Your task to perform on an android device: set default search engine in the chrome app Image 0: 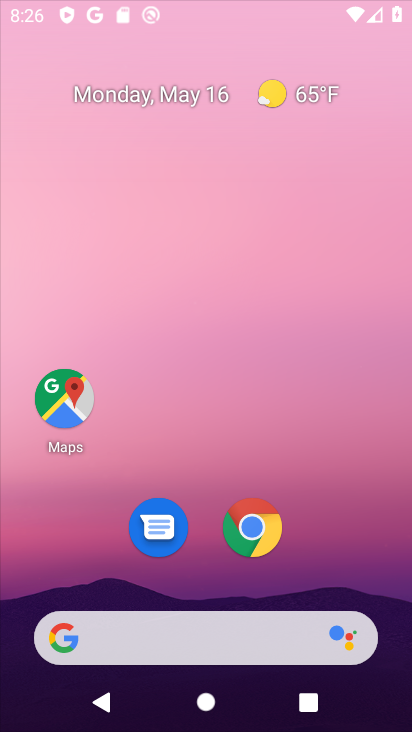
Step 0: click (321, 268)
Your task to perform on an android device: set default search engine in the chrome app Image 1: 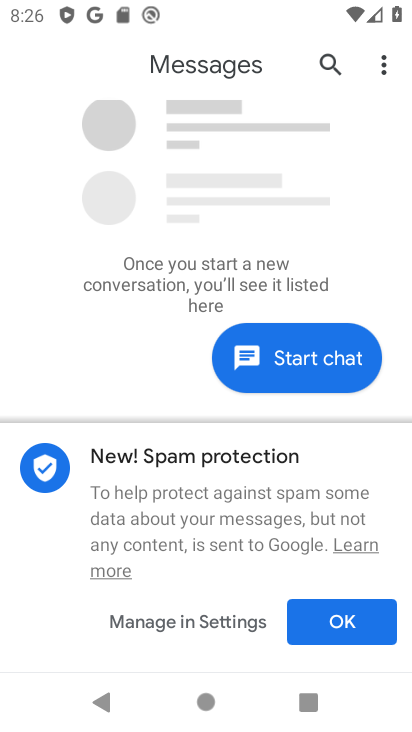
Step 1: press home button
Your task to perform on an android device: set default search engine in the chrome app Image 2: 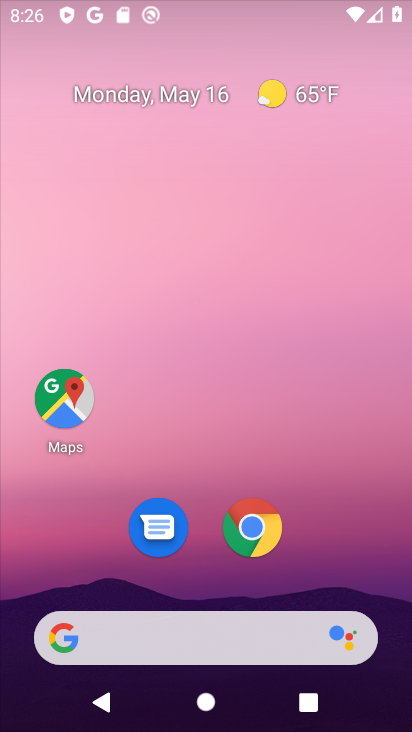
Step 2: drag from (305, 565) to (337, 198)
Your task to perform on an android device: set default search engine in the chrome app Image 3: 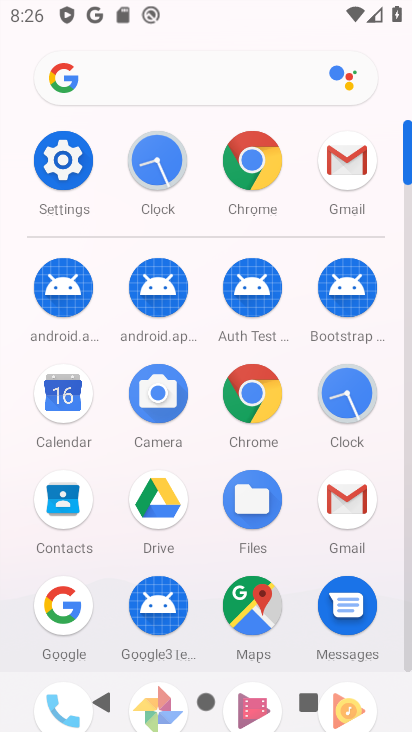
Step 3: click (270, 391)
Your task to perform on an android device: set default search engine in the chrome app Image 4: 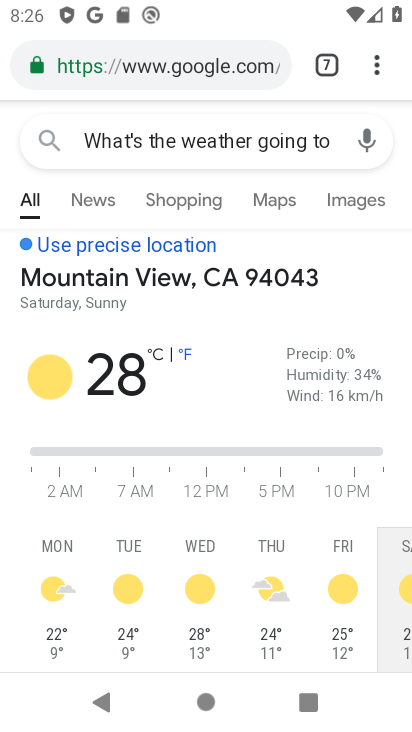
Step 4: click (367, 71)
Your task to perform on an android device: set default search engine in the chrome app Image 5: 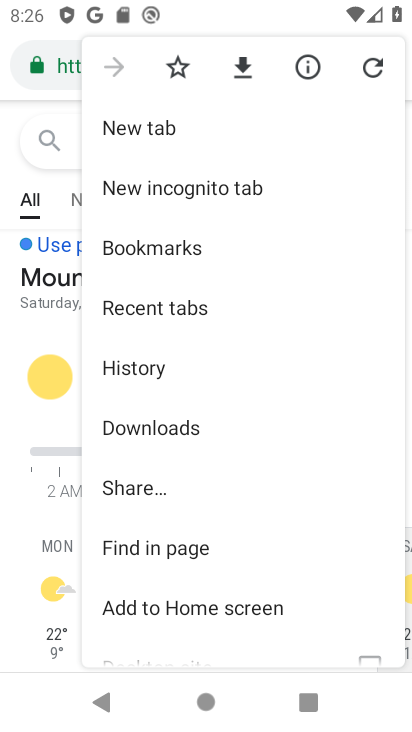
Step 5: drag from (185, 522) to (271, 178)
Your task to perform on an android device: set default search engine in the chrome app Image 6: 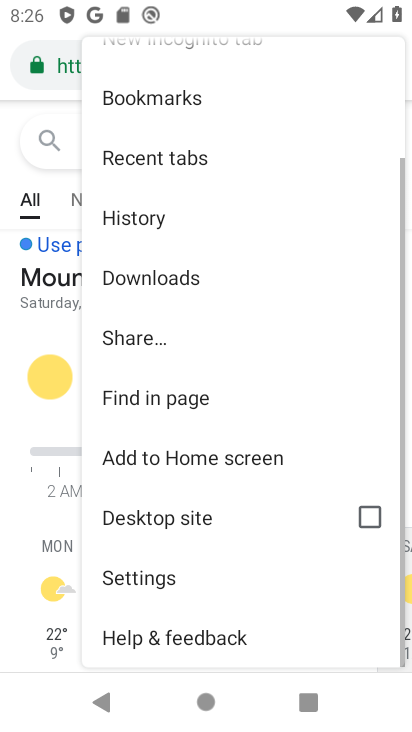
Step 6: click (163, 569)
Your task to perform on an android device: set default search engine in the chrome app Image 7: 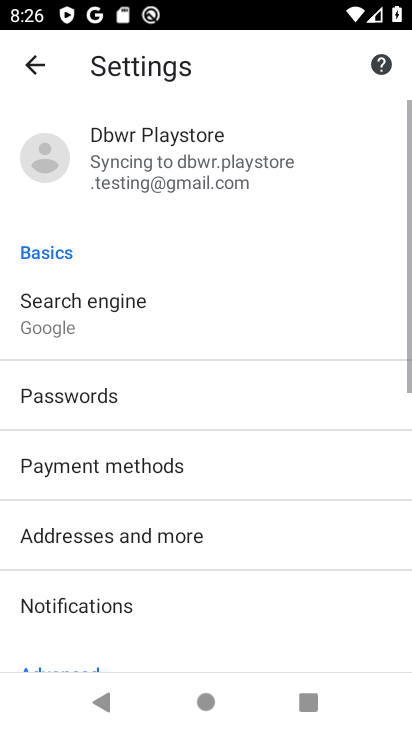
Step 7: click (63, 315)
Your task to perform on an android device: set default search engine in the chrome app Image 8: 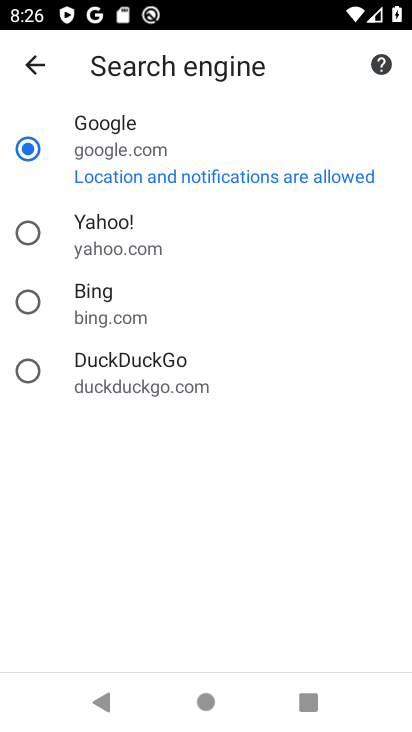
Step 8: click (72, 297)
Your task to perform on an android device: set default search engine in the chrome app Image 9: 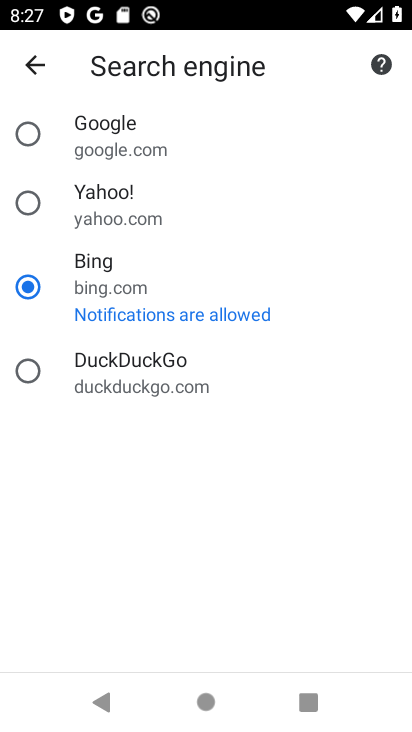
Step 9: task complete